Your task to perform on an android device: Open Google Chrome and open the bookmarks view Image 0: 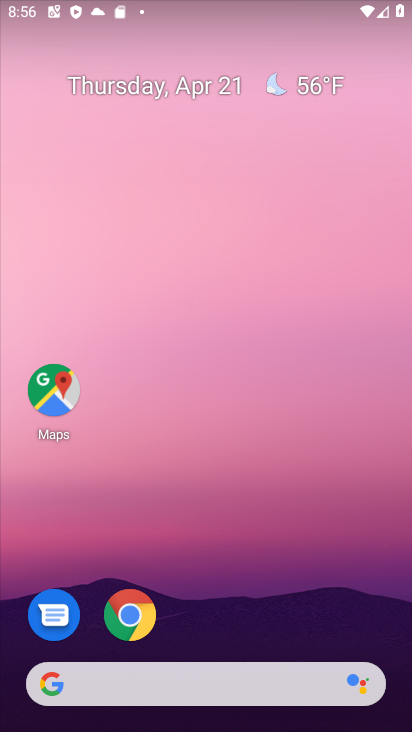
Step 0: click (126, 613)
Your task to perform on an android device: Open Google Chrome and open the bookmarks view Image 1: 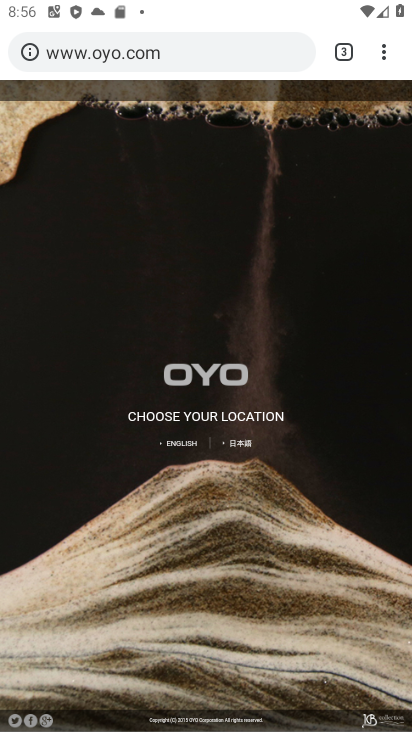
Step 1: click (381, 48)
Your task to perform on an android device: Open Google Chrome and open the bookmarks view Image 2: 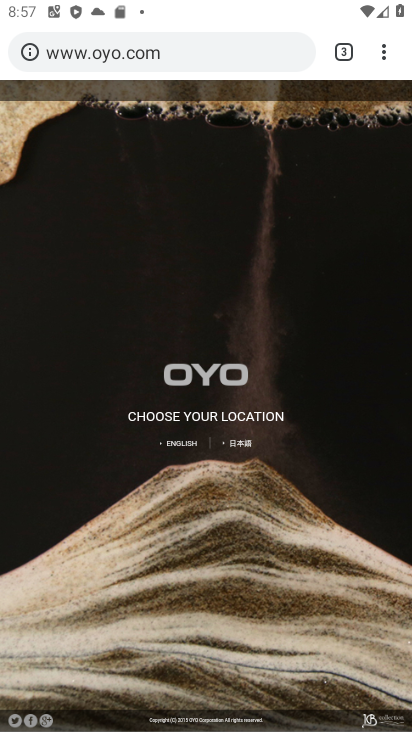
Step 2: click (378, 52)
Your task to perform on an android device: Open Google Chrome and open the bookmarks view Image 3: 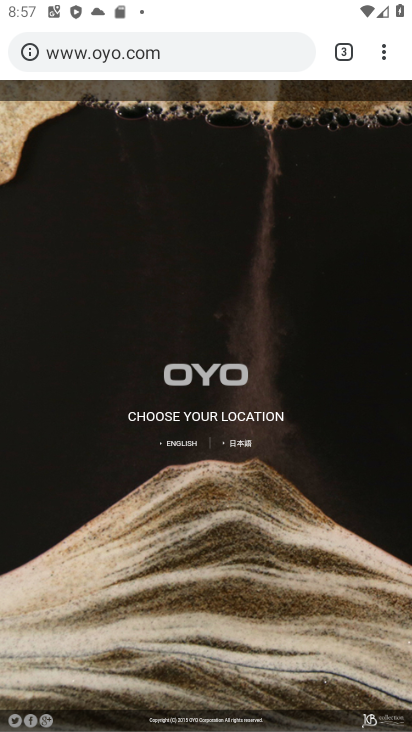
Step 3: click (381, 52)
Your task to perform on an android device: Open Google Chrome and open the bookmarks view Image 4: 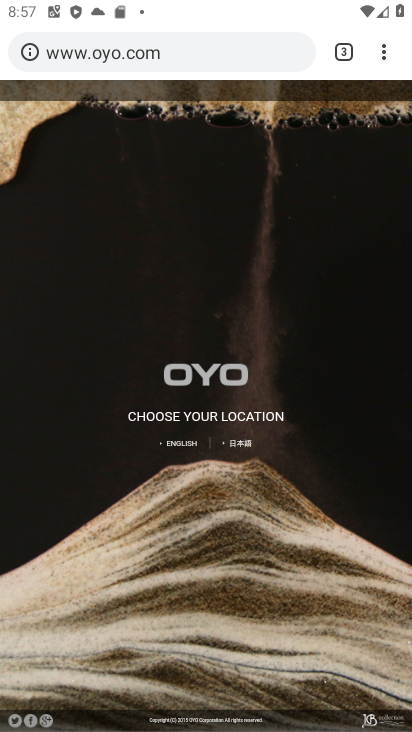
Step 4: click (391, 52)
Your task to perform on an android device: Open Google Chrome and open the bookmarks view Image 5: 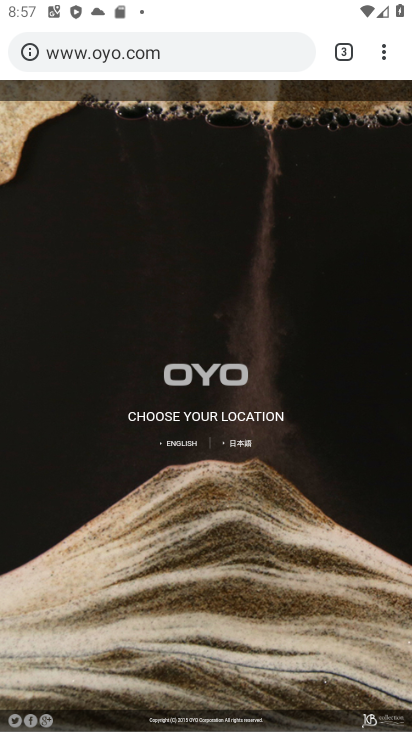
Step 5: click (376, 52)
Your task to perform on an android device: Open Google Chrome and open the bookmarks view Image 6: 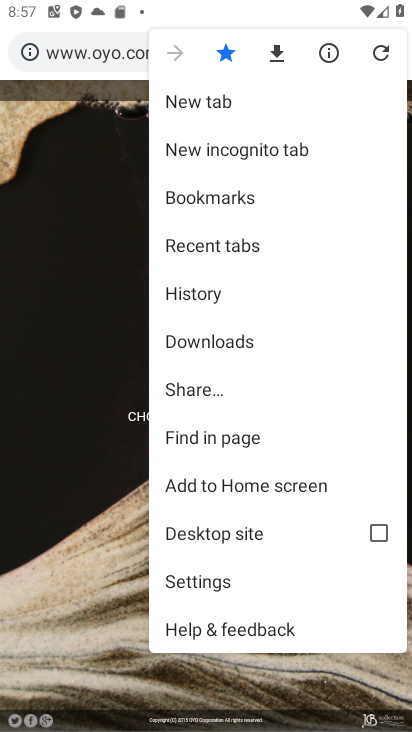
Step 6: click (229, 197)
Your task to perform on an android device: Open Google Chrome and open the bookmarks view Image 7: 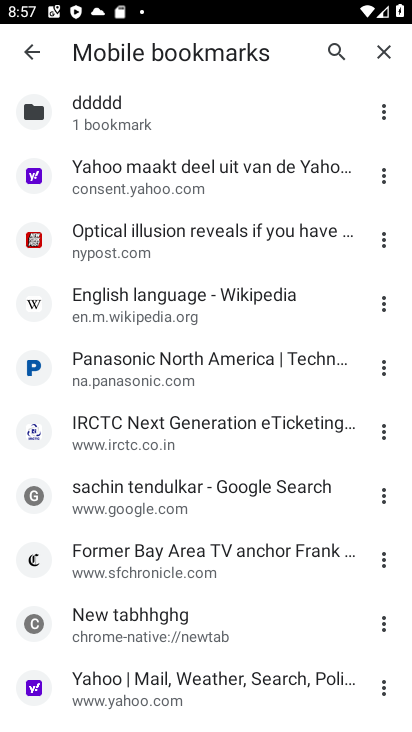
Step 7: click (112, 304)
Your task to perform on an android device: Open Google Chrome and open the bookmarks view Image 8: 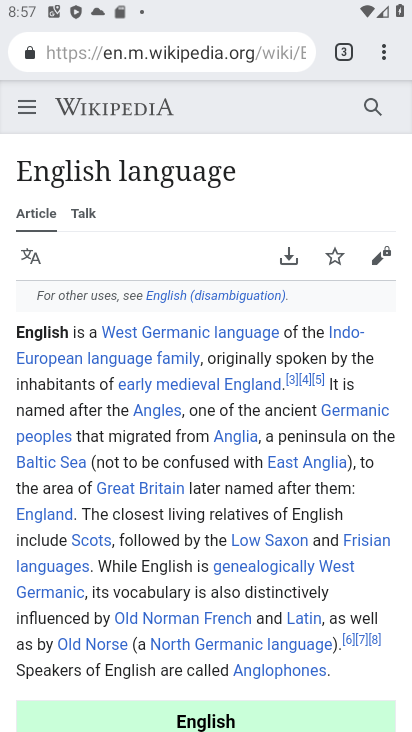
Step 8: task complete